Your task to perform on an android device: turn on location history Image 0: 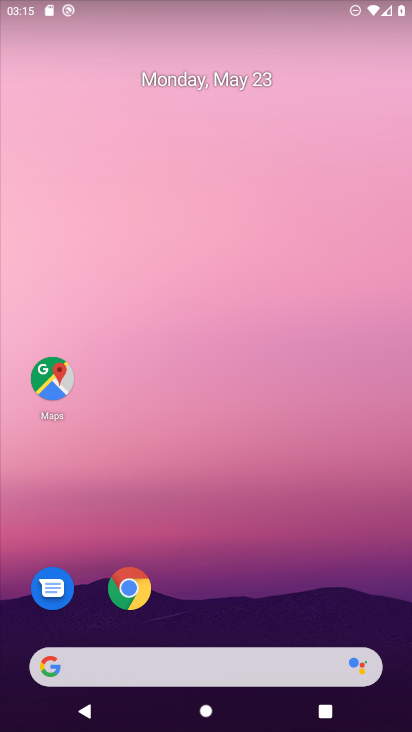
Step 0: drag from (218, 719) to (221, 145)
Your task to perform on an android device: turn on location history Image 1: 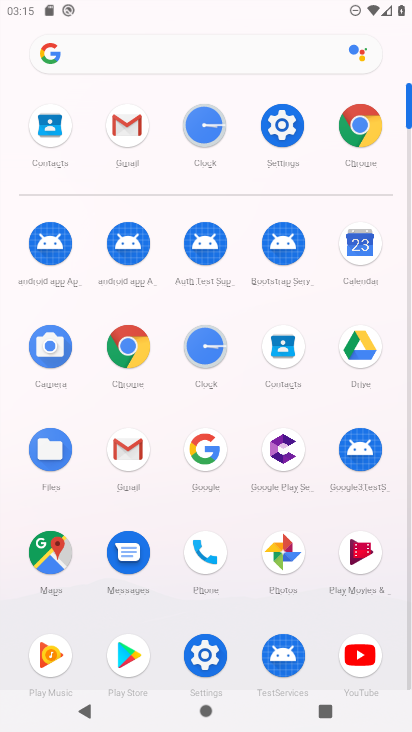
Step 1: click (291, 126)
Your task to perform on an android device: turn on location history Image 2: 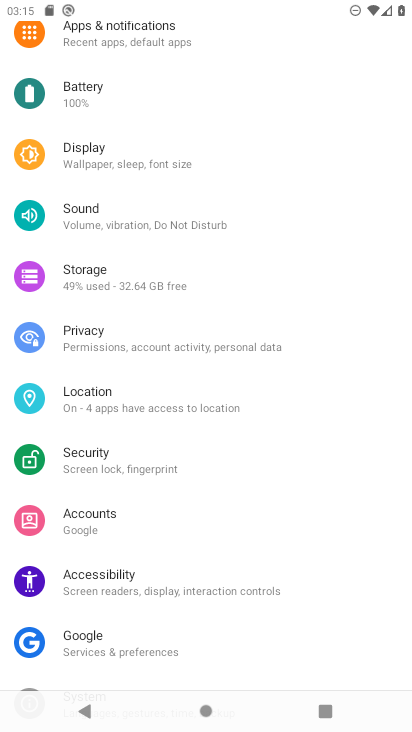
Step 2: click (117, 405)
Your task to perform on an android device: turn on location history Image 3: 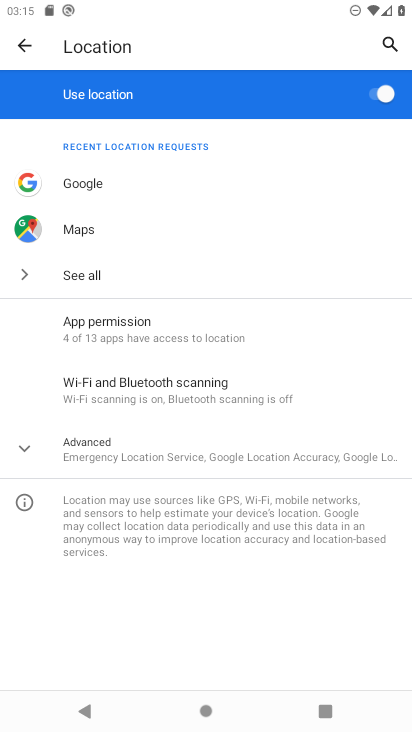
Step 3: click (83, 448)
Your task to perform on an android device: turn on location history Image 4: 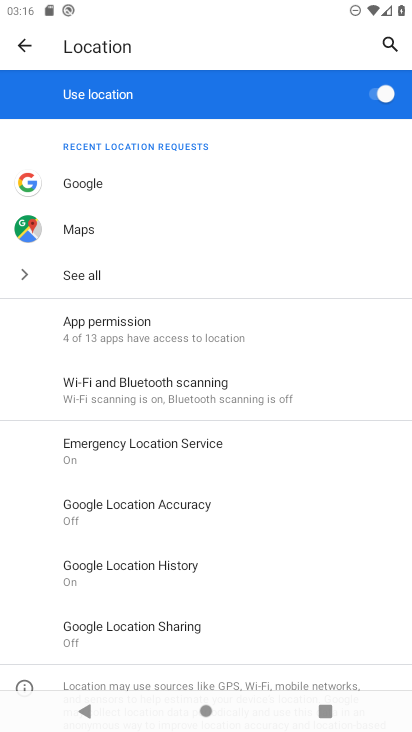
Step 4: click (130, 565)
Your task to perform on an android device: turn on location history Image 5: 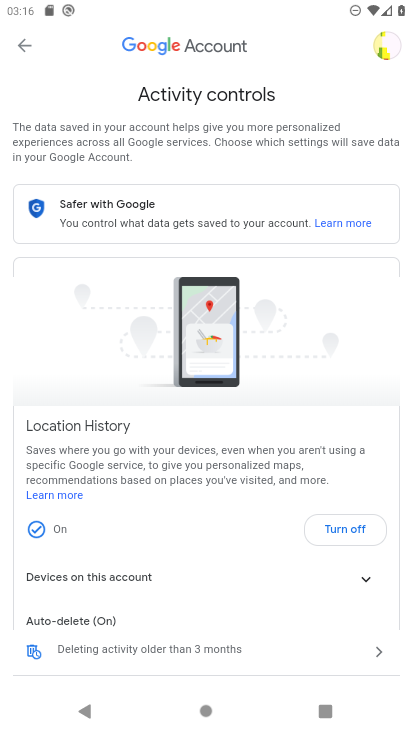
Step 5: task complete